Your task to perform on an android device: turn off smart reply in the gmail app Image 0: 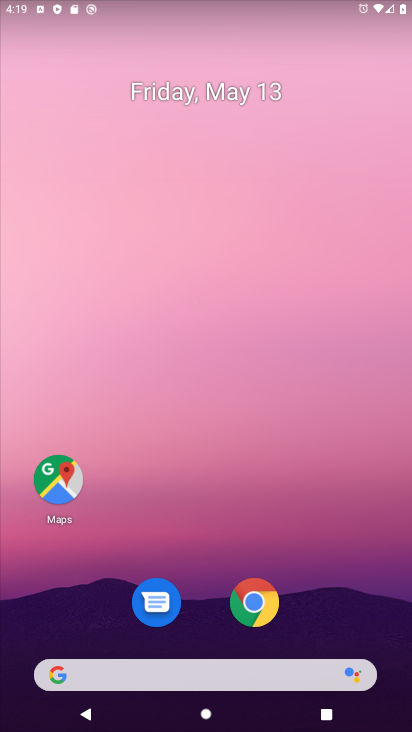
Step 0: press home button
Your task to perform on an android device: turn off smart reply in the gmail app Image 1: 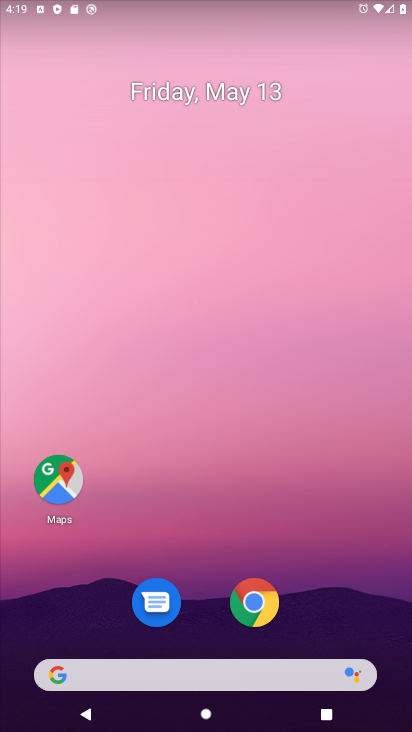
Step 1: drag from (221, 664) to (221, 145)
Your task to perform on an android device: turn off smart reply in the gmail app Image 2: 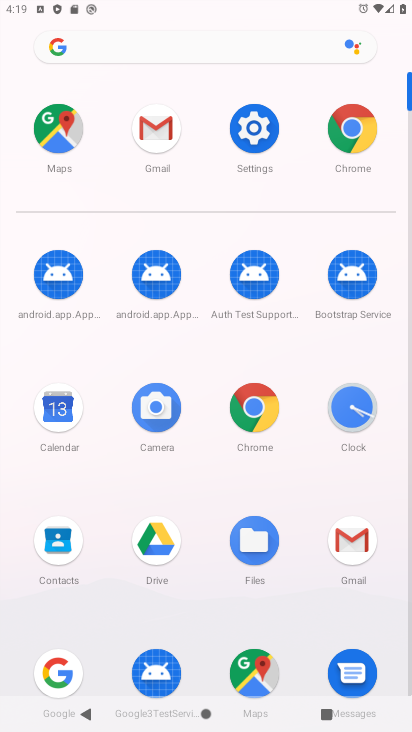
Step 2: click (356, 532)
Your task to perform on an android device: turn off smart reply in the gmail app Image 3: 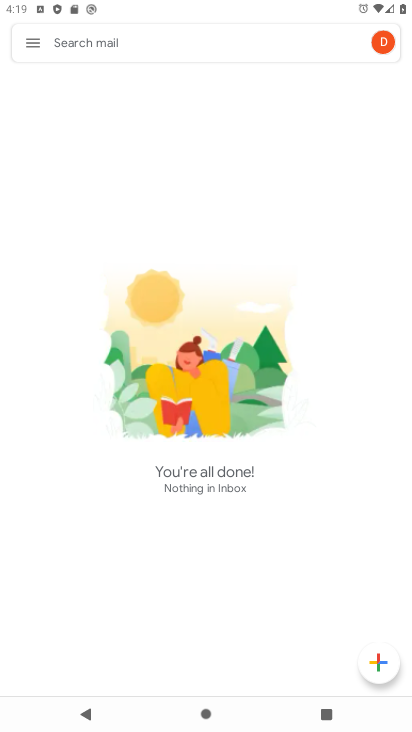
Step 3: click (29, 50)
Your task to perform on an android device: turn off smart reply in the gmail app Image 4: 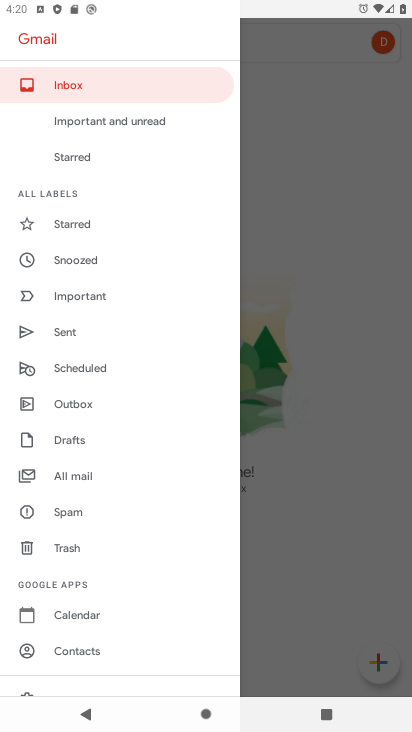
Step 4: drag from (87, 653) to (83, 311)
Your task to perform on an android device: turn off smart reply in the gmail app Image 5: 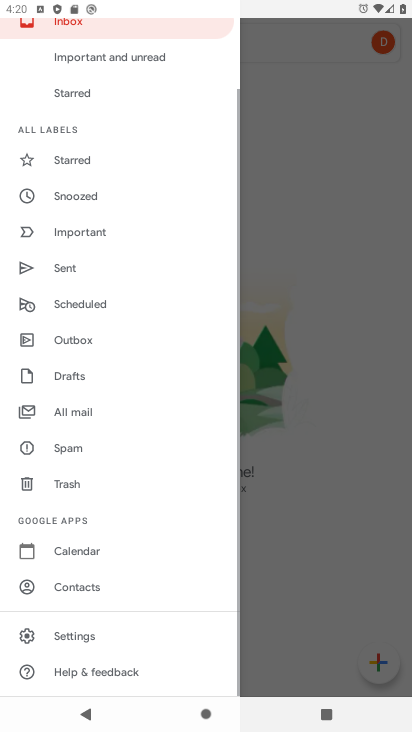
Step 5: click (78, 632)
Your task to perform on an android device: turn off smart reply in the gmail app Image 6: 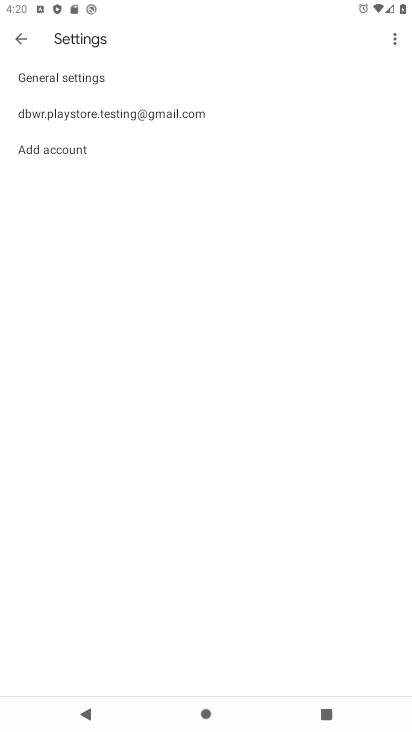
Step 6: click (138, 112)
Your task to perform on an android device: turn off smart reply in the gmail app Image 7: 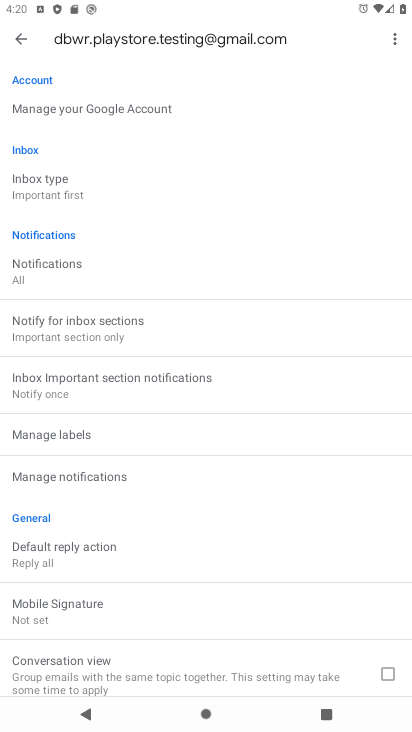
Step 7: drag from (117, 675) to (163, 341)
Your task to perform on an android device: turn off smart reply in the gmail app Image 8: 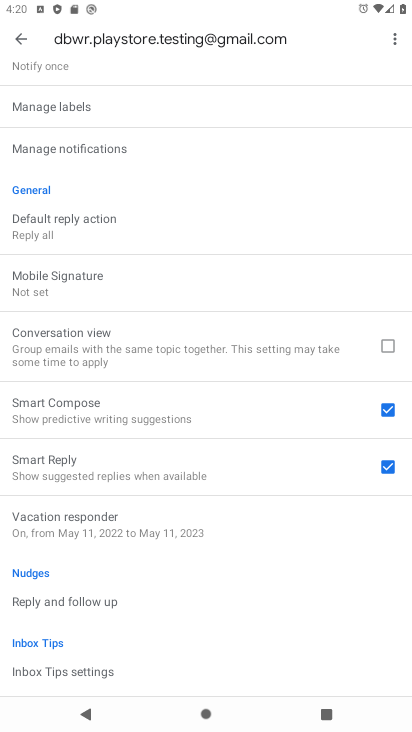
Step 8: drag from (135, 651) to (133, 325)
Your task to perform on an android device: turn off smart reply in the gmail app Image 9: 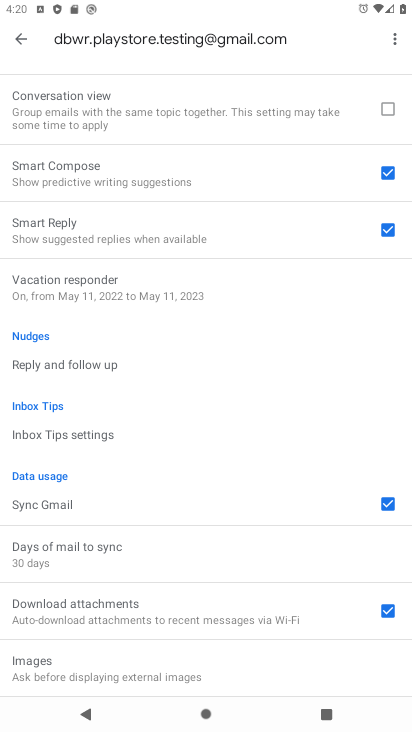
Step 9: click (382, 227)
Your task to perform on an android device: turn off smart reply in the gmail app Image 10: 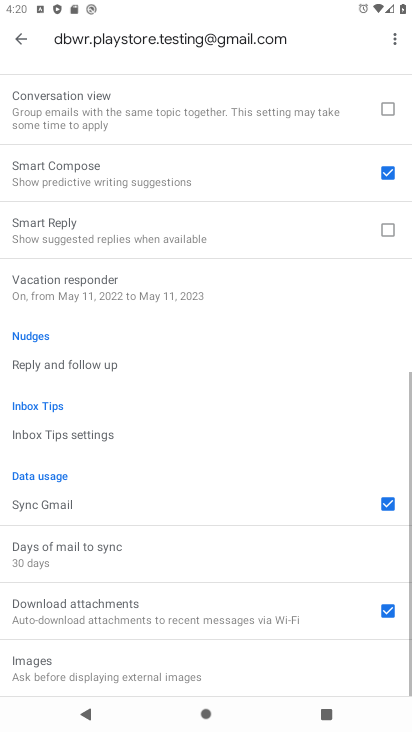
Step 10: task complete